Your task to perform on an android device: Go to Reddit.com Image 0: 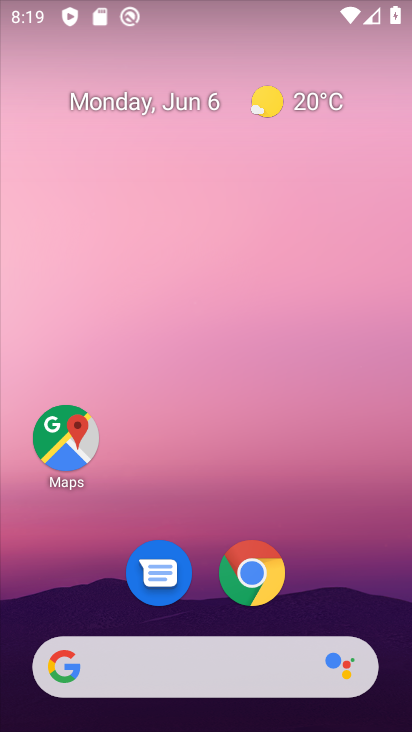
Step 0: click (248, 561)
Your task to perform on an android device: Go to Reddit.com Image 1: 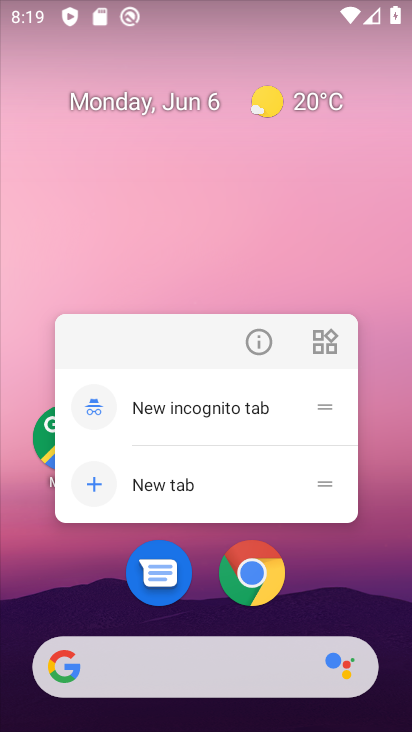
Step 1: click (251, 566)
Your task to perform on an android device: Go to Reddit.com Image 2: 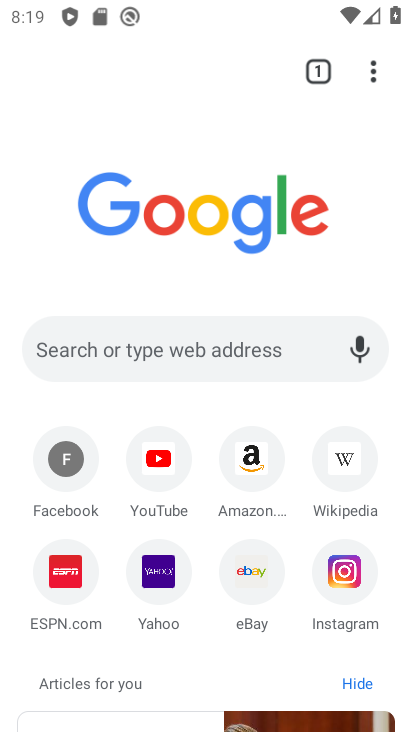
Step 2: click (137, 338)
Your task to perform on an android device: Go to Reddit.com Image 3: 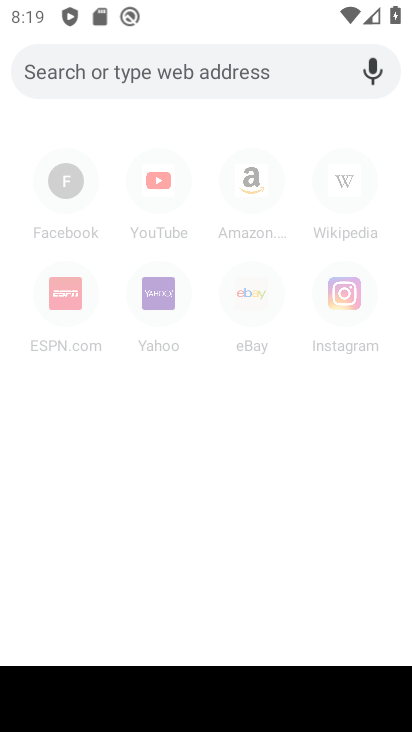
Step 3: type "reddit.com"
Your task to perform on an android device: Go to Reddit.com Image 4: 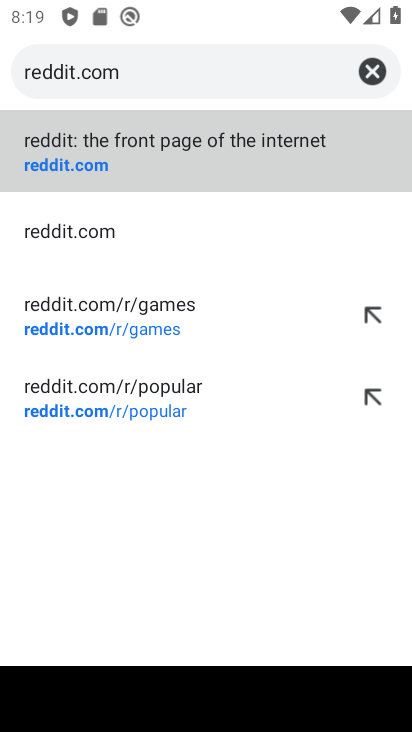
Step 4: click (162, 175)
Your task to perform on an android device: Go to Reddit.com Image 5: 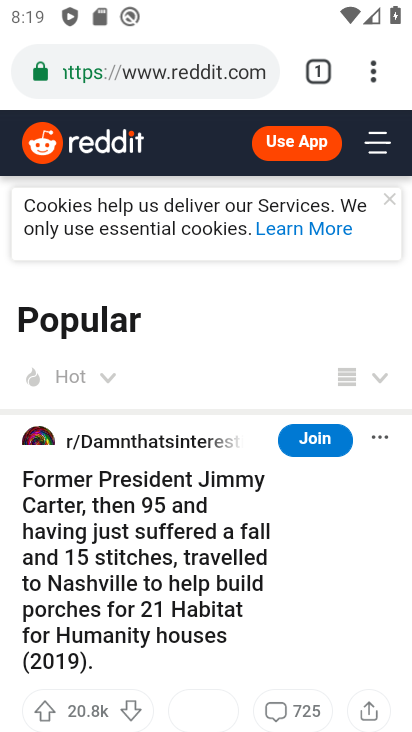
Step 5: task complete